Your task to perform on an android device: add a label to a message in the gmail app Image 0: 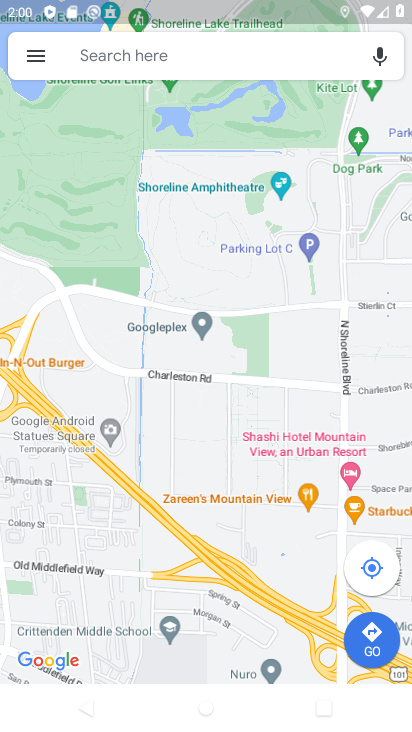
Step 0: press home button
Your task to perform on an android device: add a label to a message in the gmail app Image 1: 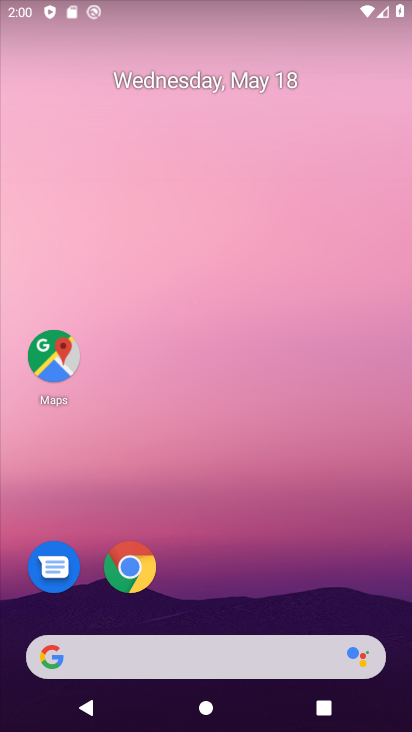
Step 1: click (228, 241)
Your task to perform on an android device: add a label to a message in the gmail app Image 2: 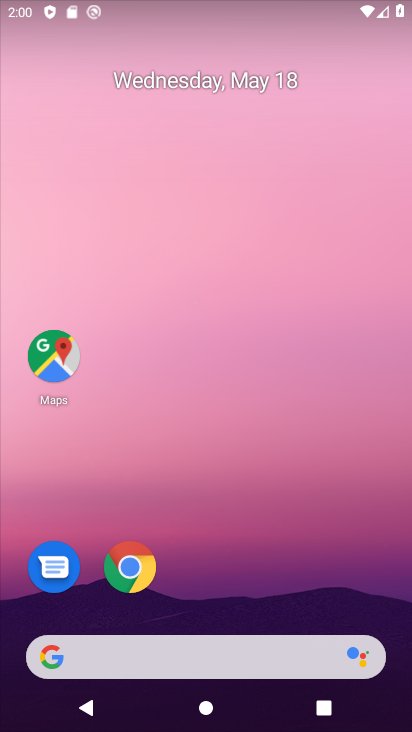
Step 2: drag from (306, 460) to (284, 266)
Your task to perform on an android device: add a label to a message in the gmail app Image 3: 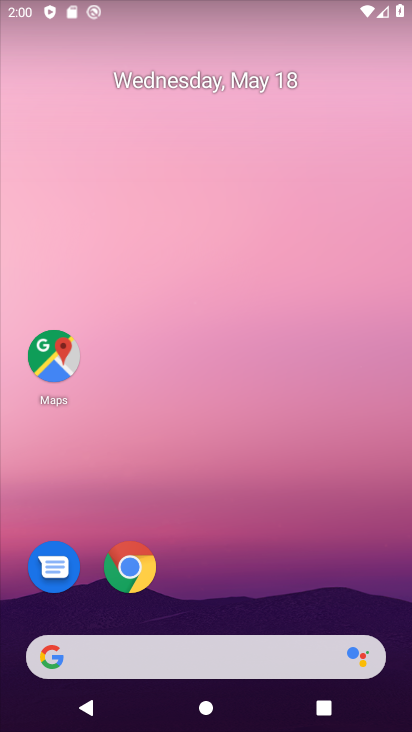
Step 3: drag from (289, 578) to (254, 310)
Your task to perform on an android device: add a label to a message in the gmail app Image 4: 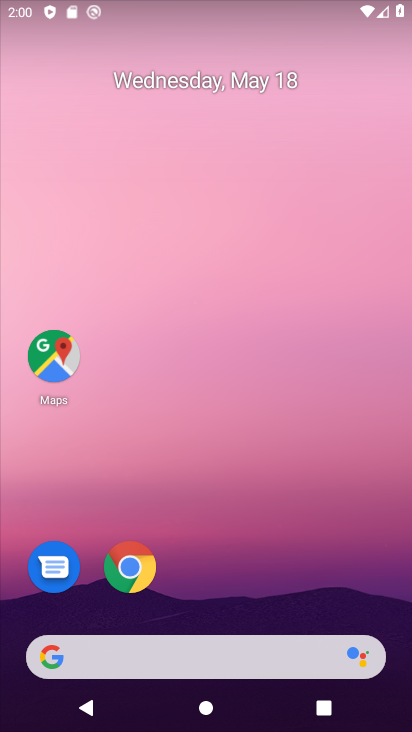
Step 4: drag from (211, 593) to (213, 247)
Your task to perform on an android device: add a label to a message in the gmail app Image 5: 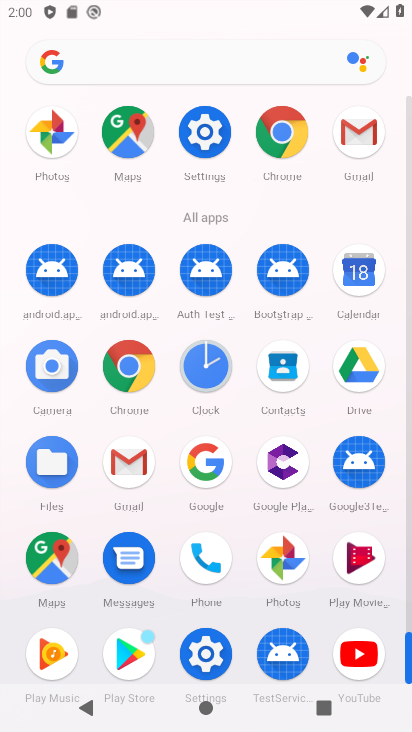
Step 5: click (274, 129)
Your task to perform on an android device: add a label to a message in the gmail app Image 6: 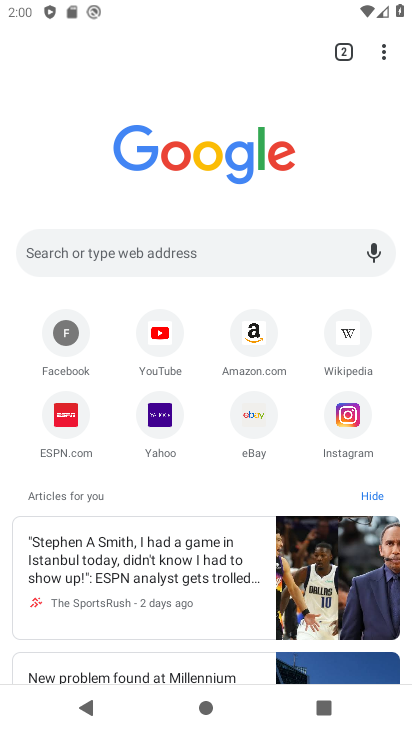
Step 6: press back button
Your task to perform on an android device: add a label to a message in the gmail app Image 7: 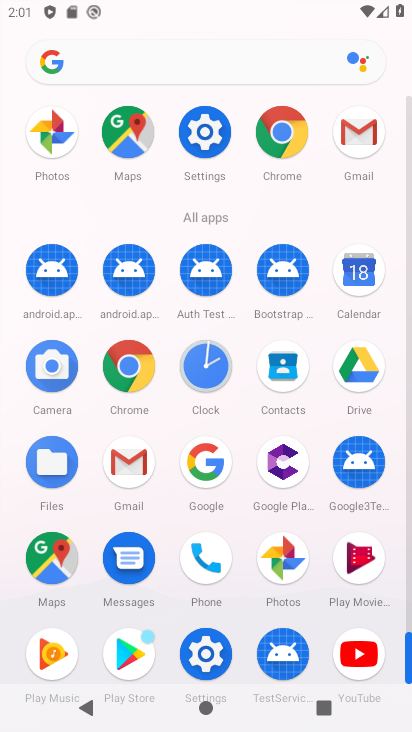
Step 7: click (357, 128)
Your task to perform on an android device: add a label to a message in the gmail app Image 8: 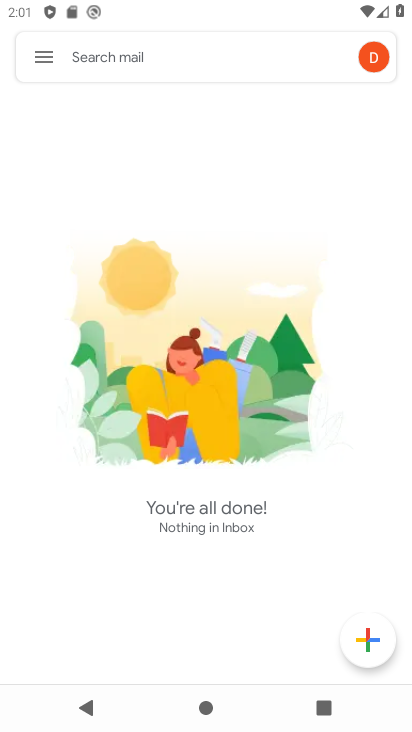
Step 8: click (28, 59)
Your task to perform on an android device: add a label to a message in the gmail app Image 9: 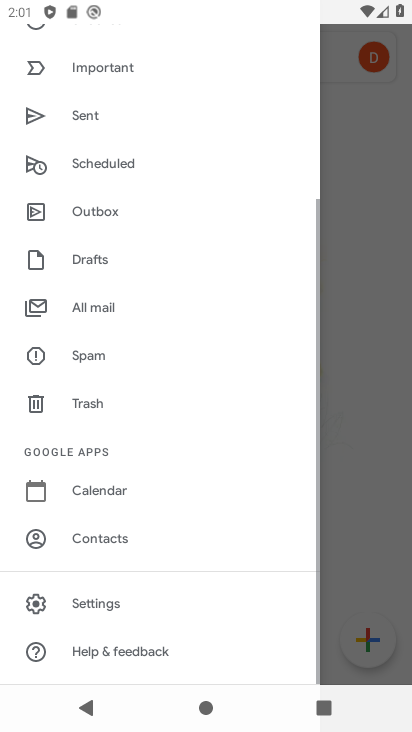
Step 9: click (102, 305)
Your task to perform on an android device: add a label to a message in the gmail app Image 10: 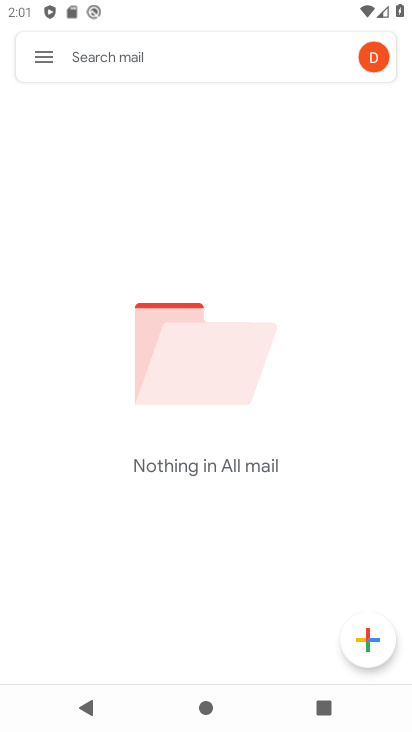
Step 10: task complete